Your task to perform on an android device: Open accessibility settings Image 0: 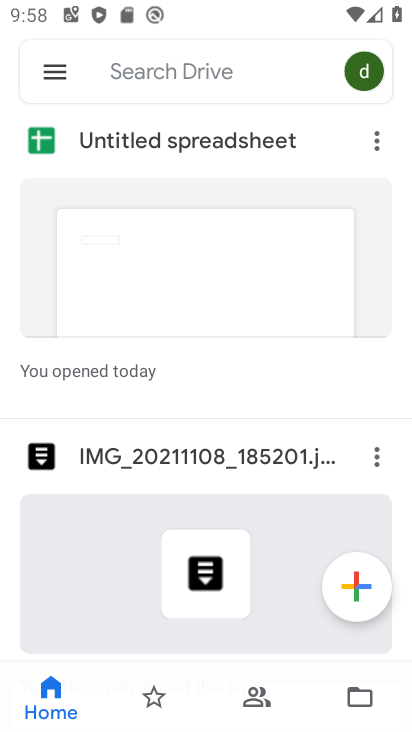
Step 0: press home button
Your task to perform on an android device: Open accessibility settings Image 1: 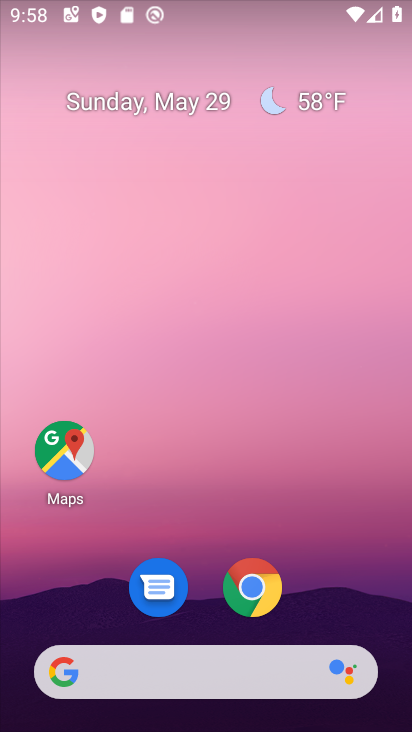
Step 1: drag from (367, 583) to (180, 26)
Your task to perform on an android device: Open accessibility settings Image 2: 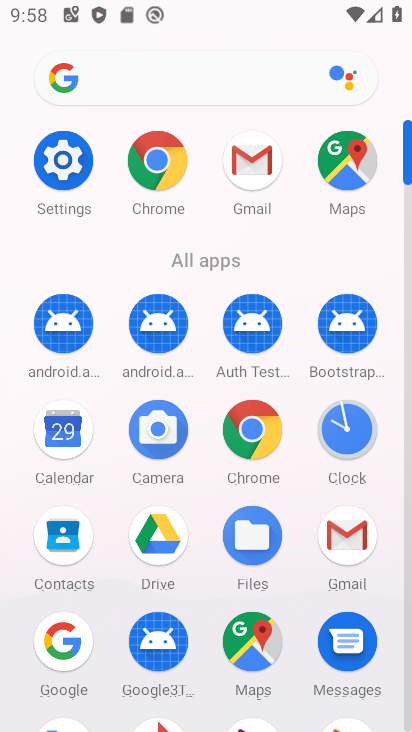
Step 2: click (71, 152)
Your task to perform on an android device: Open accessibility settings Image 3: 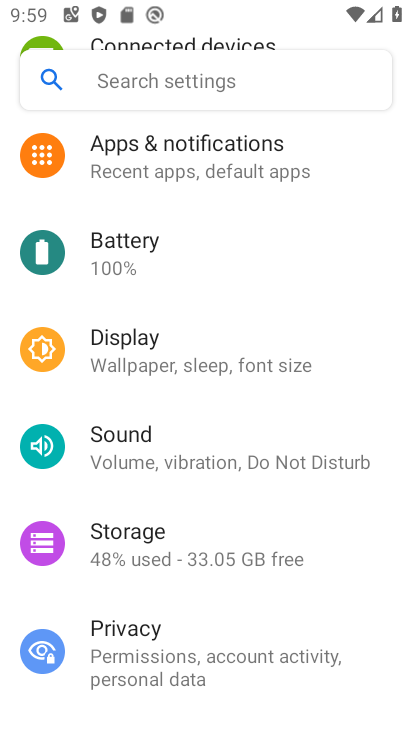
Step 3: drag from (255, 629) to (179, 113)
Your task to perform on an android device: Open accessibility settings Image 4: 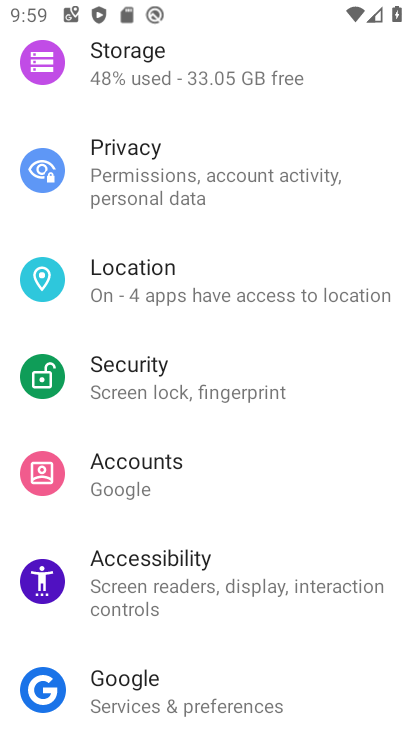
Step 4: click (259, 581)
Your task to perform on an android device: Open accessibility settings Image 5: 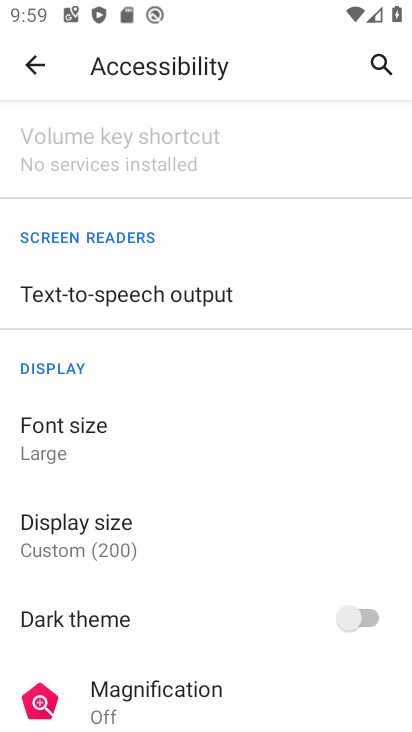
Step 5: task complete